Your task to perform on an android device: Go to Google maps Image 0: 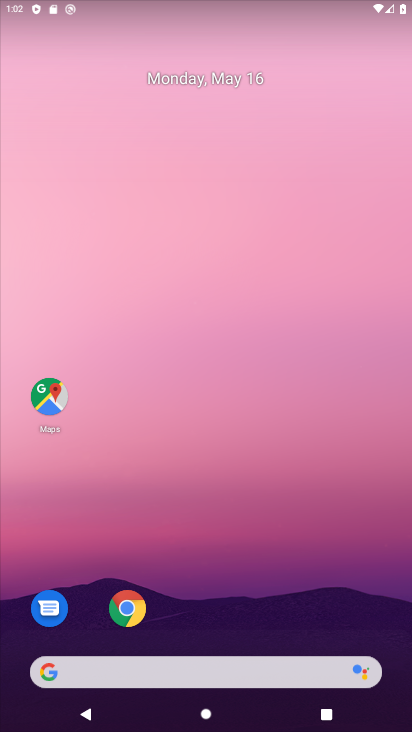
Step 0: click (44, 406)
Your task to perform on an android device: Go to Google maps Image 1: 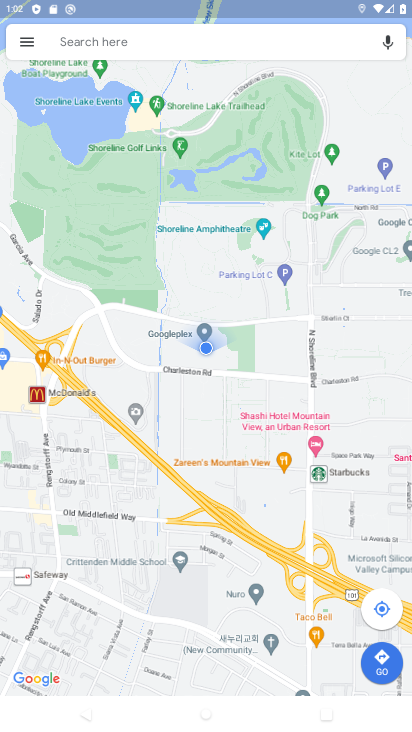
Step 1: task complete